Your task to perform on an android device: turn off location history Image 0: 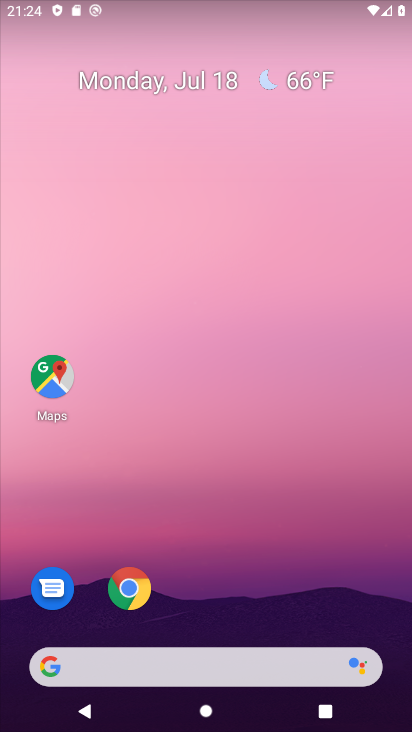
Step 0: press home button
Your task to perform on an android device: turn off location history Image 1: 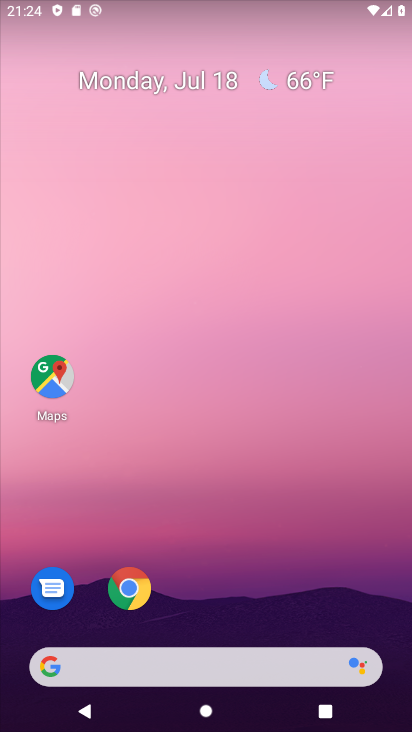
Step 1: drag from (258, 461) to (324, 85)
Your task to perform on an android device: turn off location history Image 2: 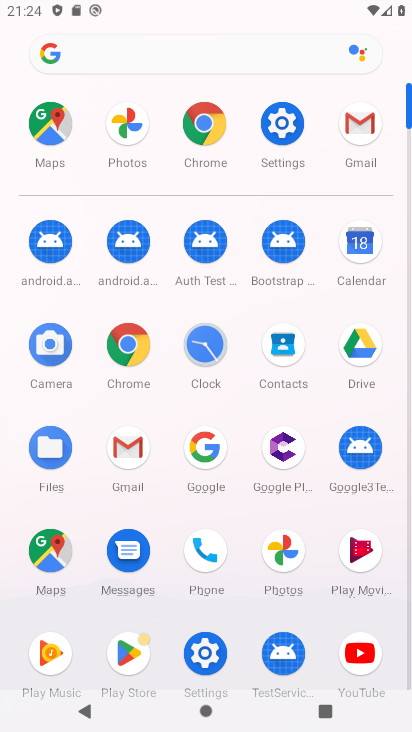
Step 2: click (48, 559)
Your task to perform on an android device: turn off location history Image 3: 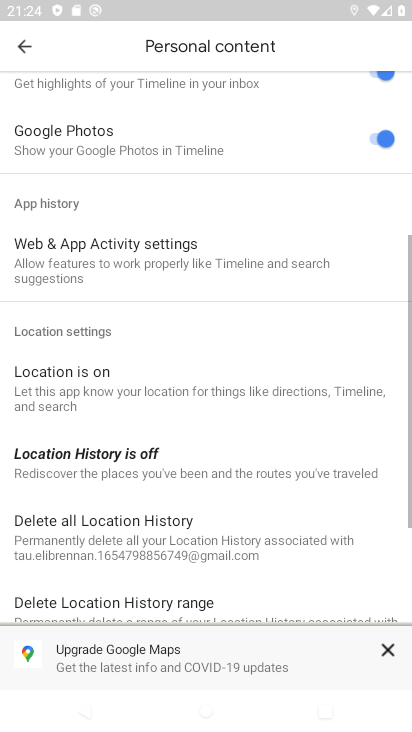
Step 3: click (104, 453)
Your task to perform on an android device: turn off location history Image 4: 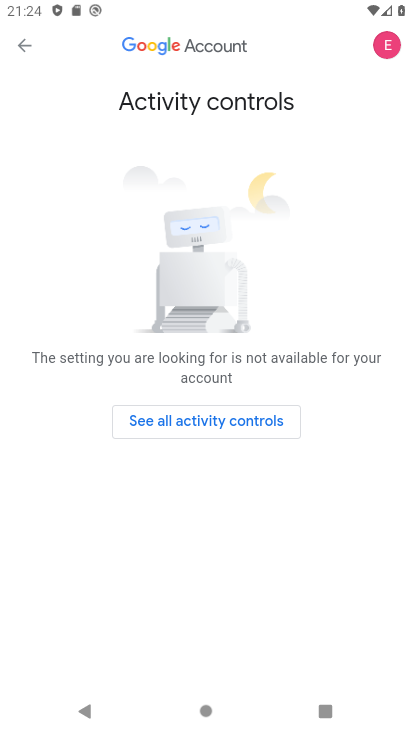
Step 4: click (194, 425)
Your task to perform on an android device: turn off location history Image 5: 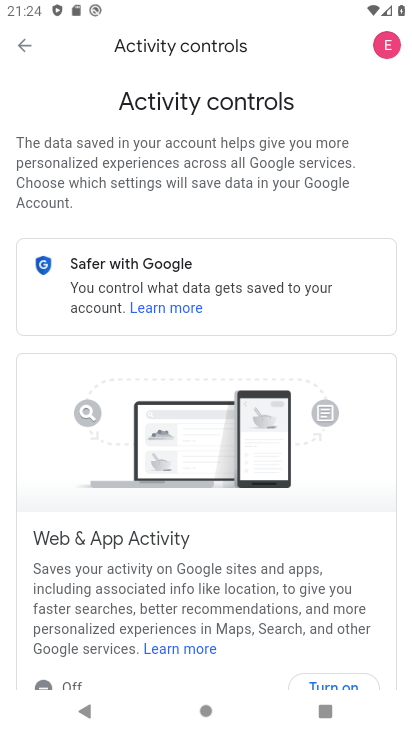
Step 5: click (347, 679)
Your task to perform on an android device: turn off location history Image 6: 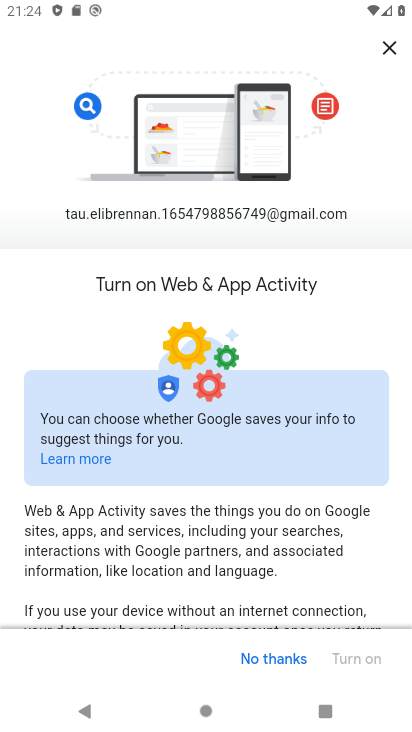
Step 6: click (285, 646)
Your task to perform on an android device: turn off location history Image 7: 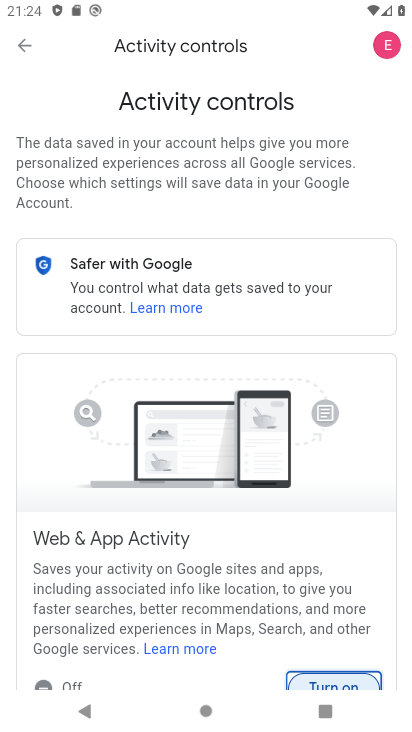
Step 7: task complete